Your task to perform on an android device: Open notification settings Image 0: 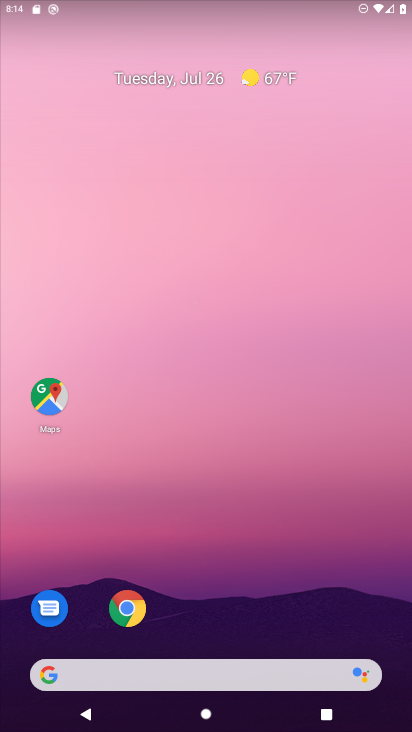
Step 0: drag from (205, 619) to (268, 71)
Your task to perform on an android device: Open notification settings Image 1: 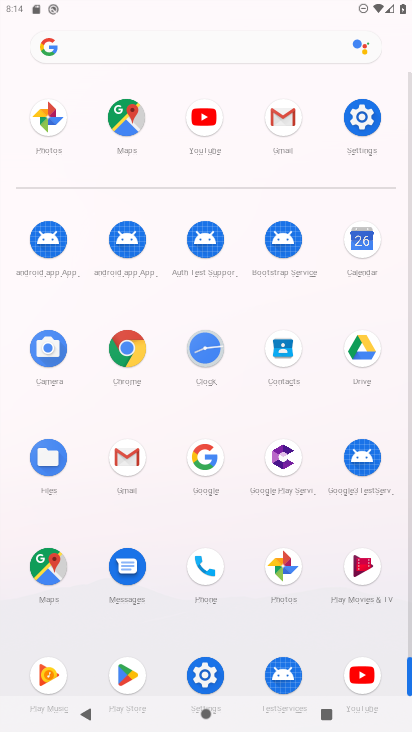
Step 1: click (209, 673)
Your task to perform on an android device: Open notification settings Image 2: 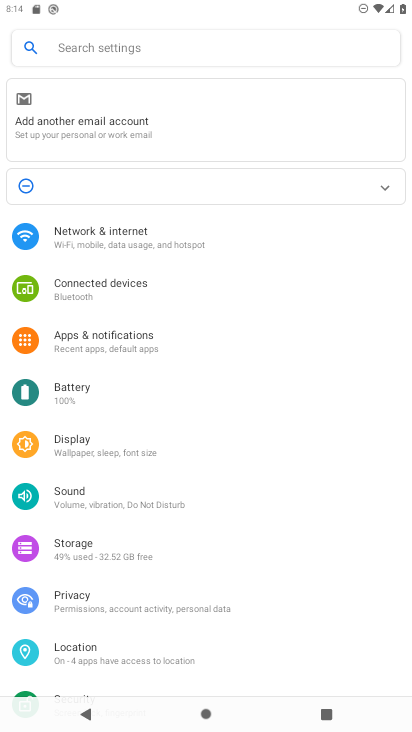
Step 2: click (141, 343)
Your task to perform on an android device: Open notification settings Image 3: 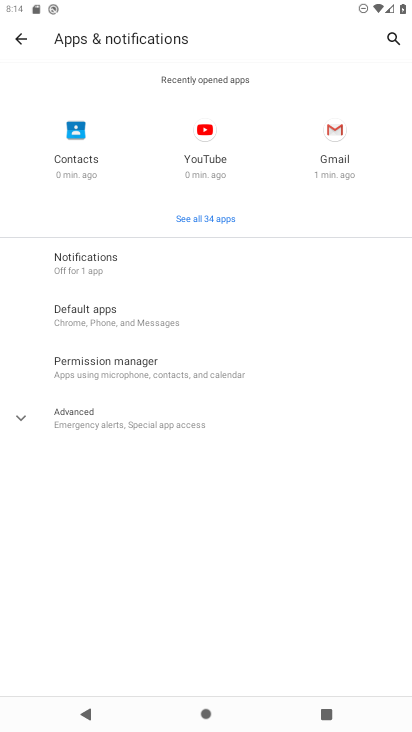
Step 3: click (106, 262)
Your task to perform on an android device: Open notification settings Image 4: 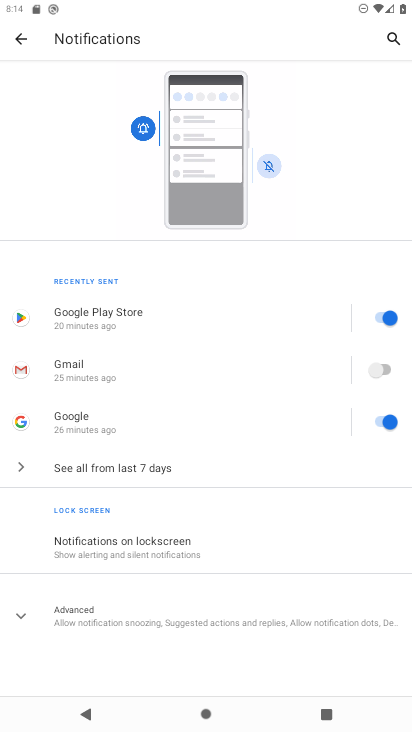
Step 4: task complete